Your task to perform on an android device: Open internet settings Image 0: 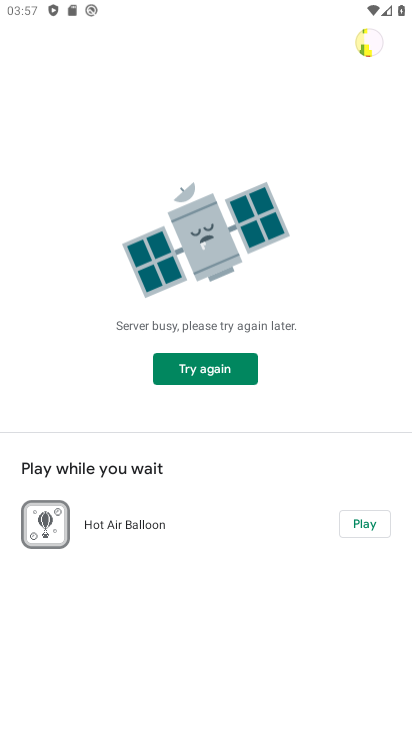
Step 0: press home button
Your task to perform on an android device: Open internet settings Image 1: 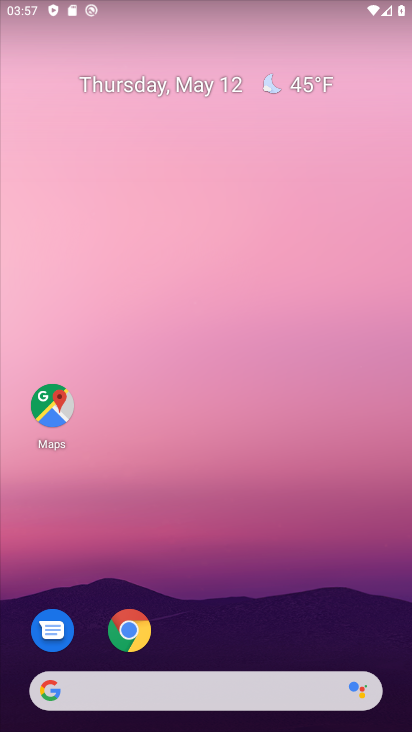
Step 1: drag from (196, 503) to (183, 16)
Your task to perform on an android device: Open internet settings Image 2: 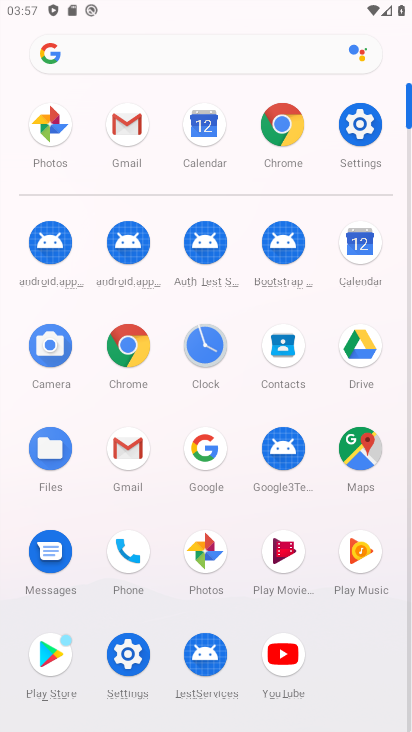
Step 2: click (352, 158)
Your task to perform on an android device: Open internet settings Image 3: 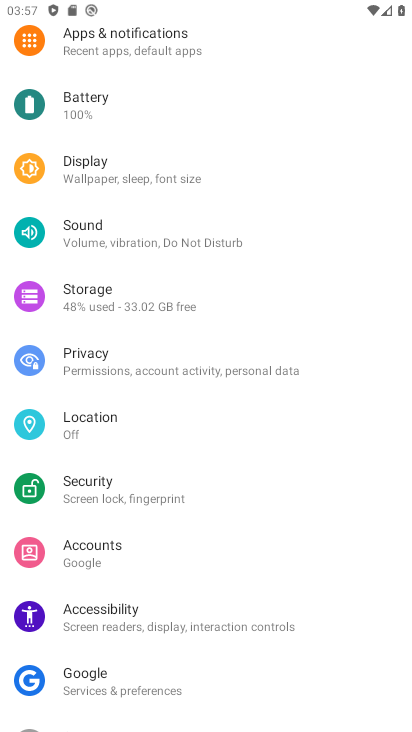
Step 3: drag from (126, 201) to (95, 639)
Your task to perform on an android device: Open internet settings Image 4: 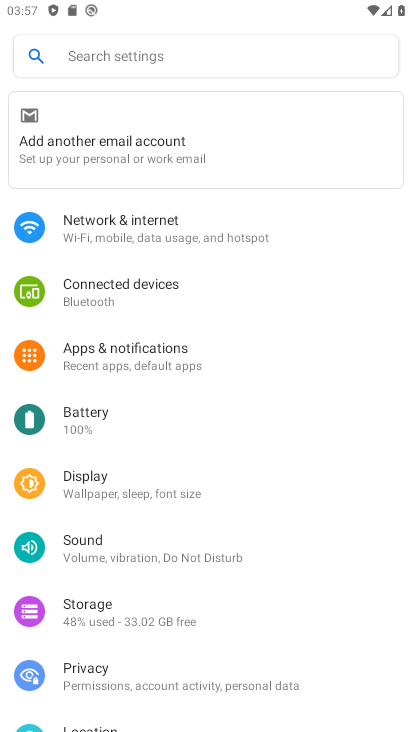
Step 4: click (121, 223)
Your task to perform on an android device: Open internet settings Image 5: 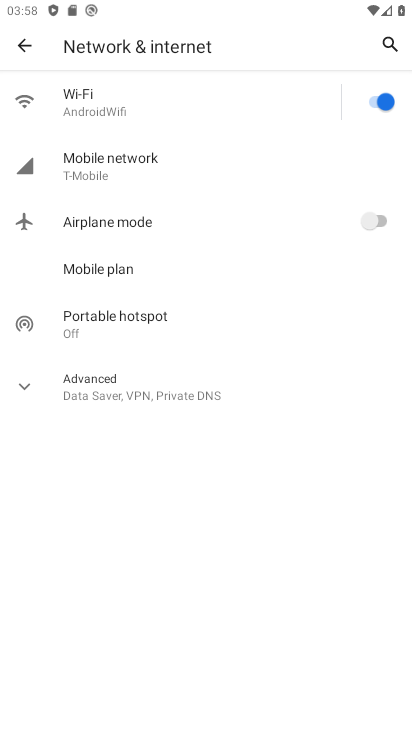
Step 5: task complete